Your task to perform on an android device: Go to network settings Image 0: 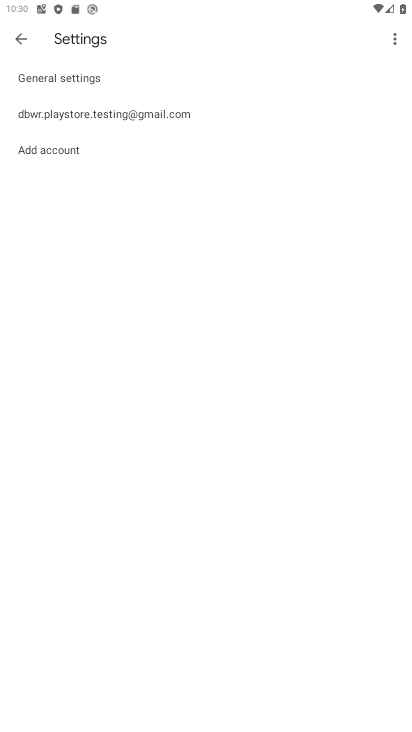
Step 0: press home button
Your task to perform on an android device: Go to network settings Image 1: 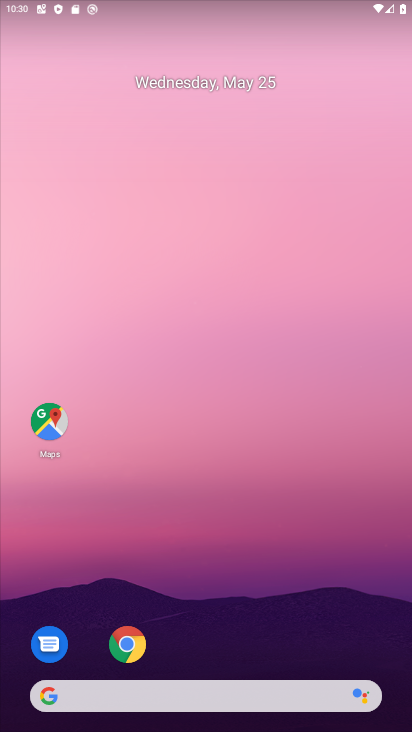
Step 1: drag from (233, 546) to (136, 58)
Your task to perform on an android device: Go to network settings Image 2: 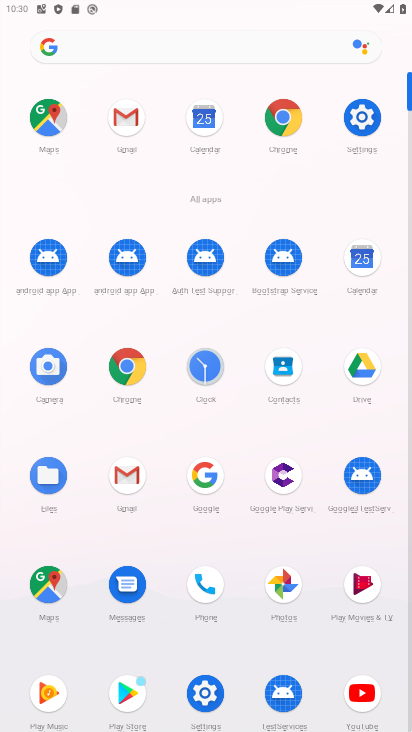
Step 2: click (364, 109)
Your task to perform on an android device: Go to network settings Image 3: 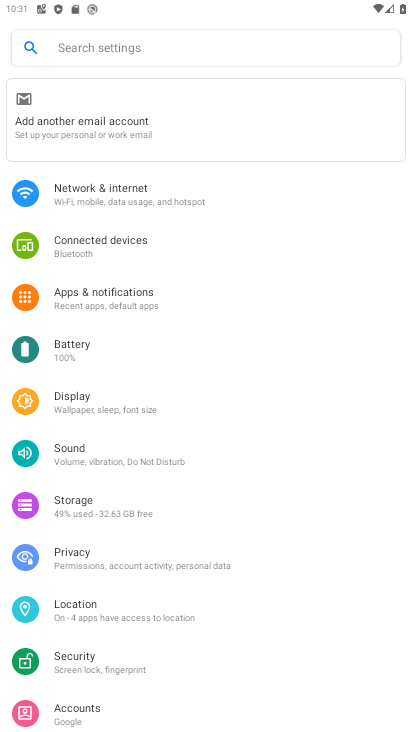
Step 3: click (95, 180)
Your task to perform on an android device: Go to network settings Image 4: 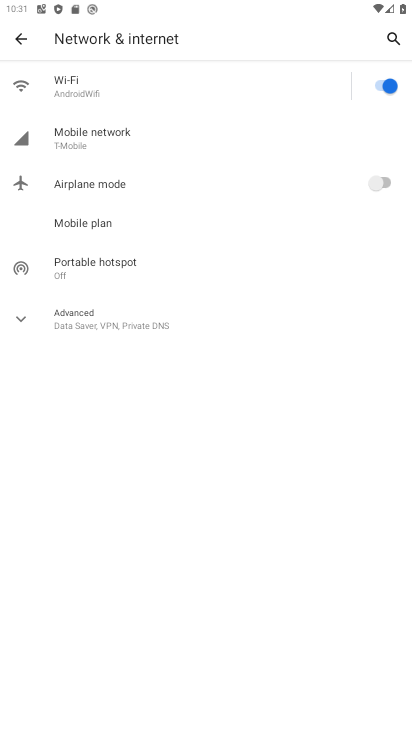
Step 4: task complete